Your task to perform on an android device: toggle notification dots Image 0: 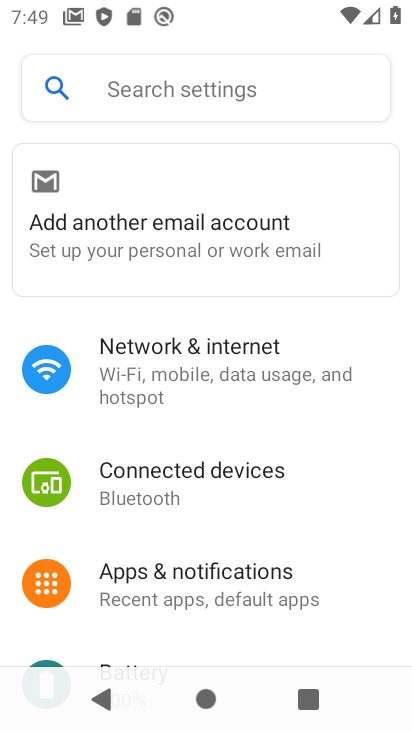
Step 0: drag from (208, 517) to (243, 130)
Your task to perform on an android device: toggle notification dots Image 1: 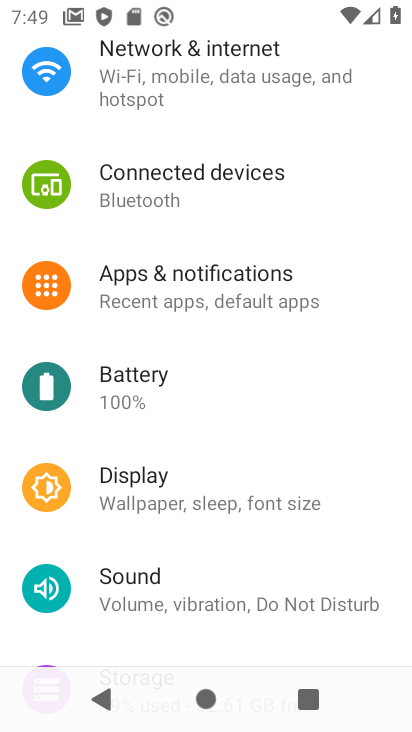
Step 1: task complete